Your task to perform on an android device: Go to battery settings Image 0: 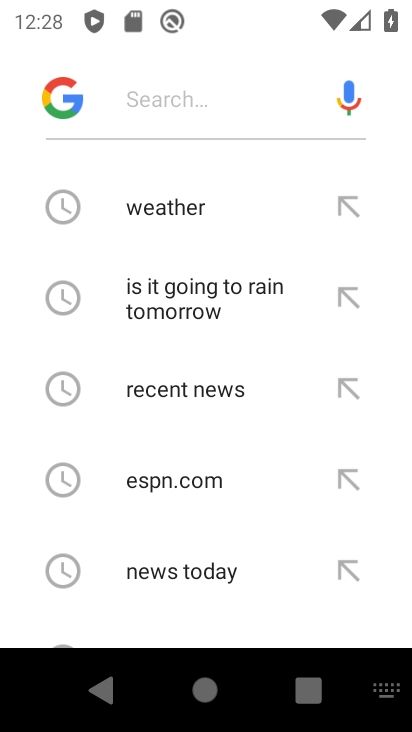
Step 0: press home button
Your task to perform on an android device: Go to battery settings Image 1: 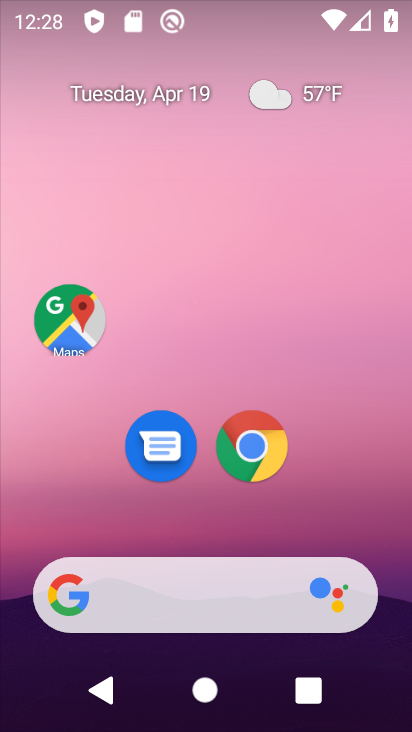
Step 1: drag from (337, 461) to (342, 91)
Your task to perform on an android device: Go to battery settings Image 2: 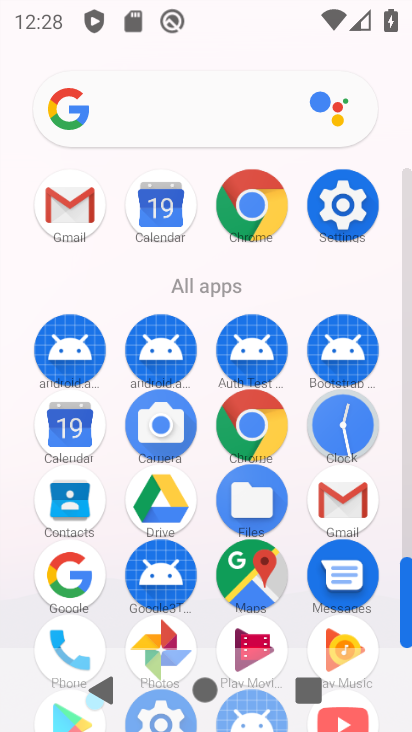
Step 2: click (334, 202)
Your task to perform on an android device: Go to battery settings Image 3: 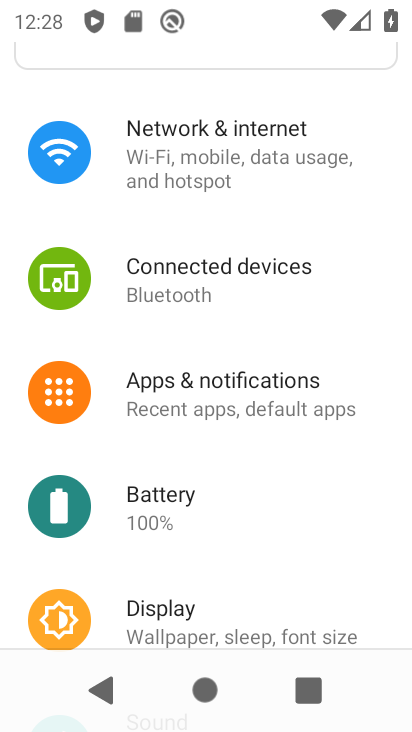
Step 3: click (262, 510)
Your task to perform on an android device: Go to battery settings Image 4: 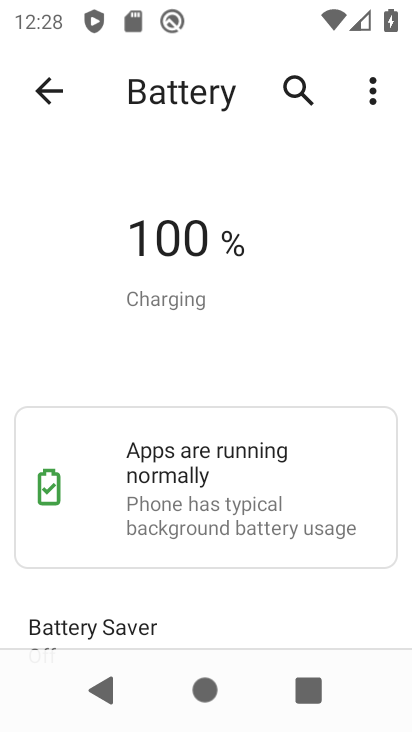
Step 4: task complete